Your task to perform on an android device: turn off airplane mode Image 0: 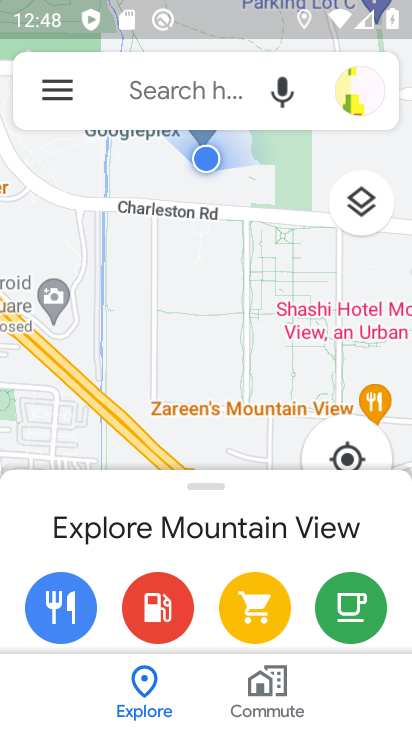
Step 0: press home button
Your task to perform on an android device: turn off airplane mode Image 1: 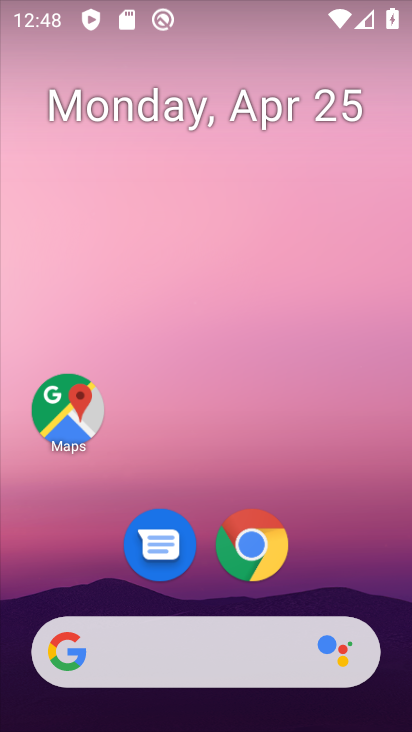
Step 1: drag from (335, 570) to (331, 106)
Your task to perform on an android device: turn off airplane mode Image 2: 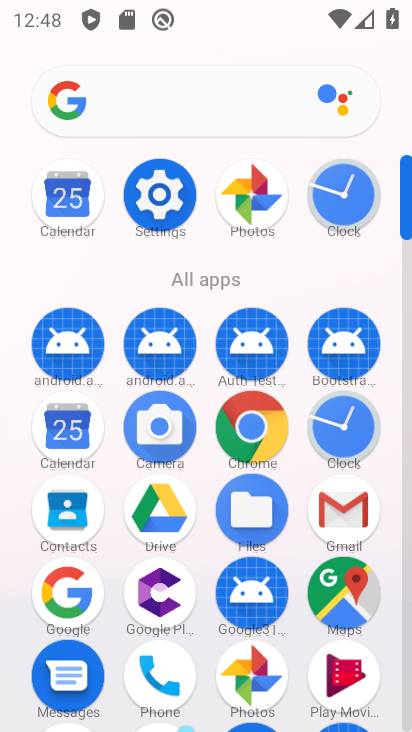
Step 2: click (159, 195)
Your task to perform on an android device: turn off airplane mode Image 3: 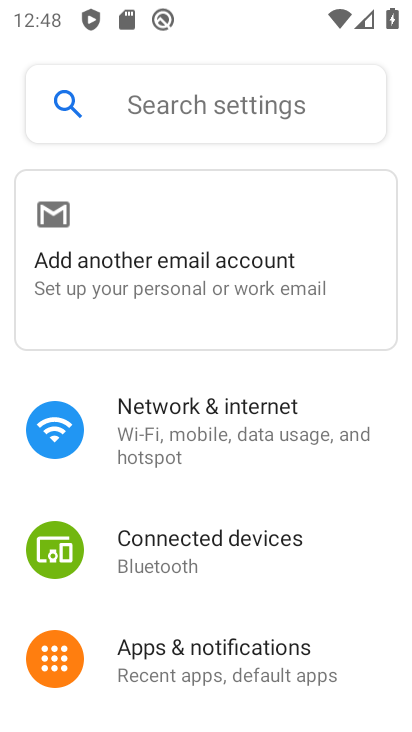
Step 3: click (232, 449)
Your task to perform on an android device: turn off airplane mode Image 4: 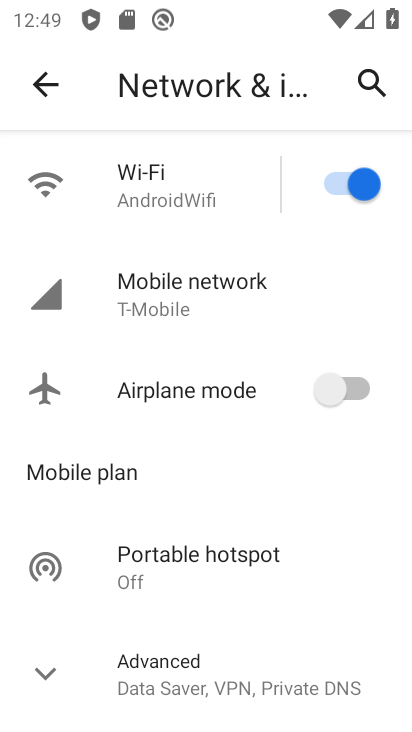
Step 4: task complete